Your task to perform on an android device: What is the recent news? Image 0: 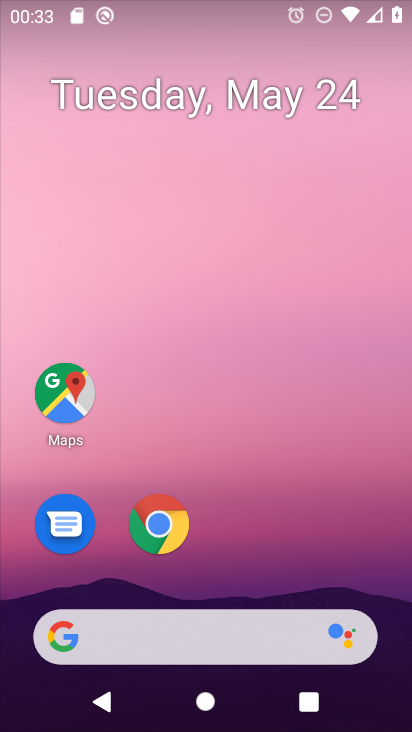
Step 0: drag from (236, 577) to (234, 177)
Your task to perform on an android device: What is the recent news? Image 1: 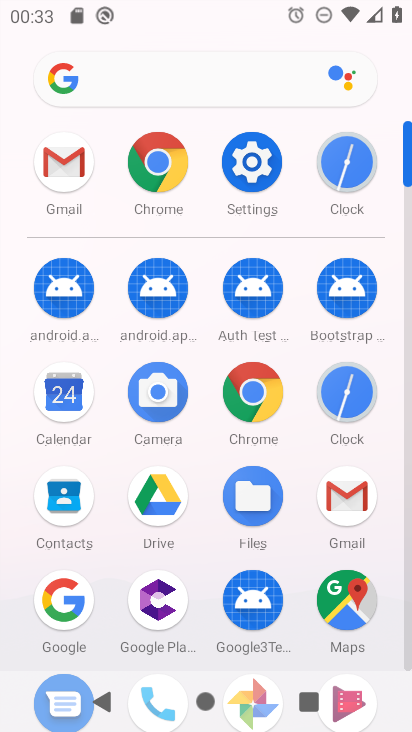
Step 1: click (58, 587)
Your task to perform on an android device: What is the recent news? Image 2: 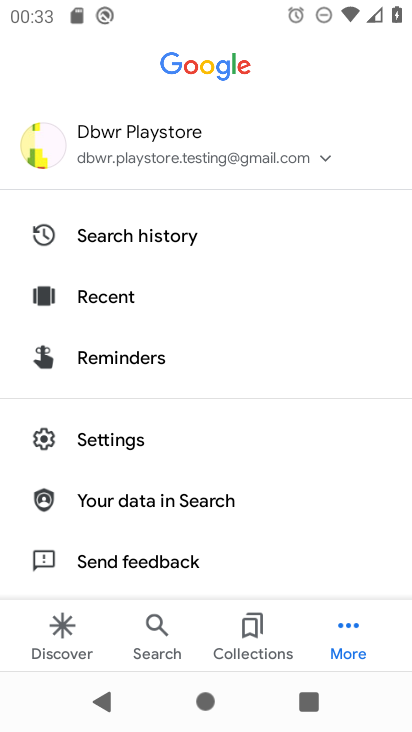
Step 2: press back button
Your task to perform on an android device: What is the recent news? Image 3: 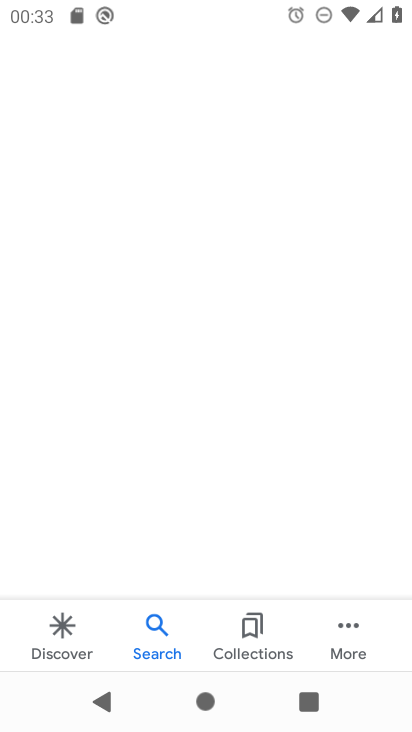
Step 3: press home button
Your task to perform on an android device: What is the recent news? Image 4: 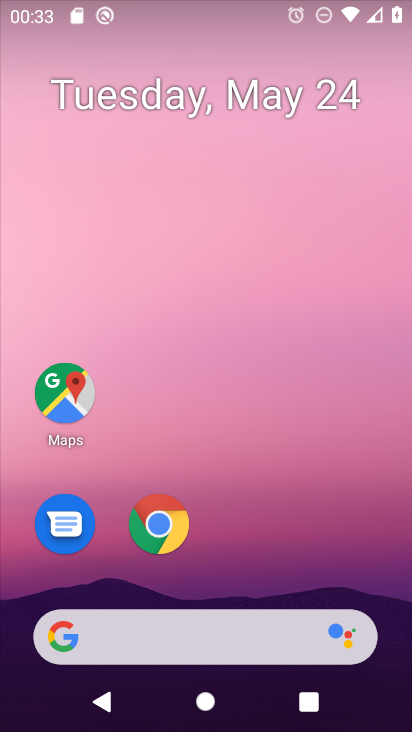
Step 4: drag from (199, 582) to (222, 191)
Your task to perform on an android device: What is the recent news? Image 5: 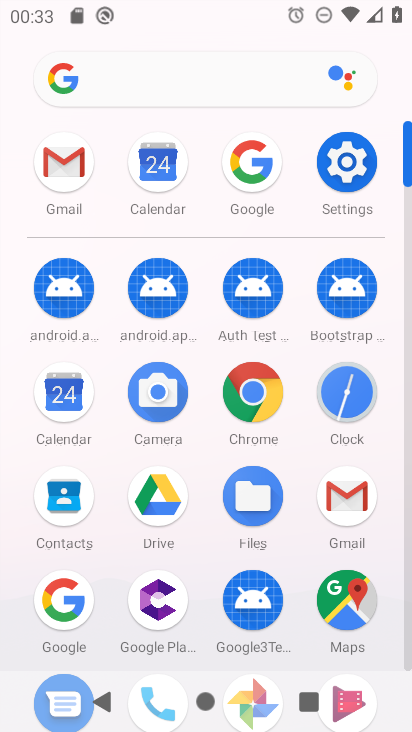
Step 5: drag from (136, 566) to (136, 393)
Your task to perform on an android device: What is the recent news? Image 6: 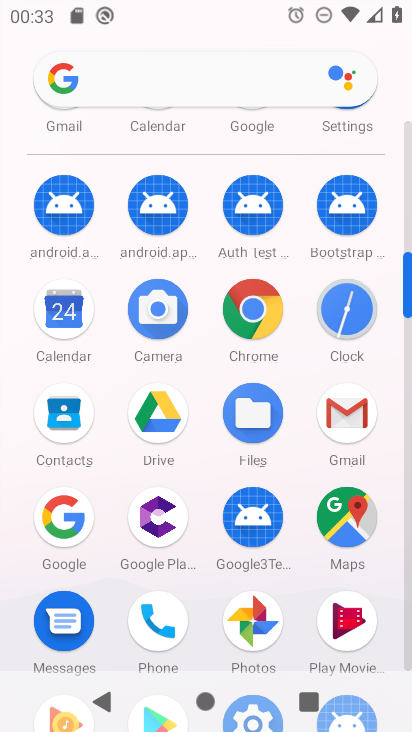
Step 6: click (40, 535)
Your task to perform on an android device: What is the recent news? Image 7: 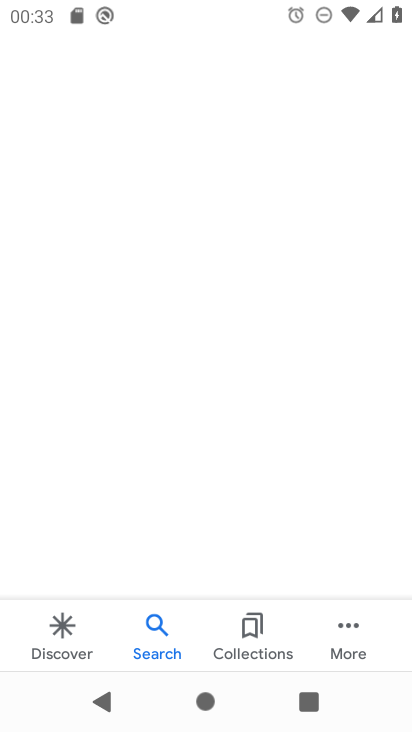
Step 7: click (71, 659)
Your task to perform on an android device: What is the recent news? Image 8: 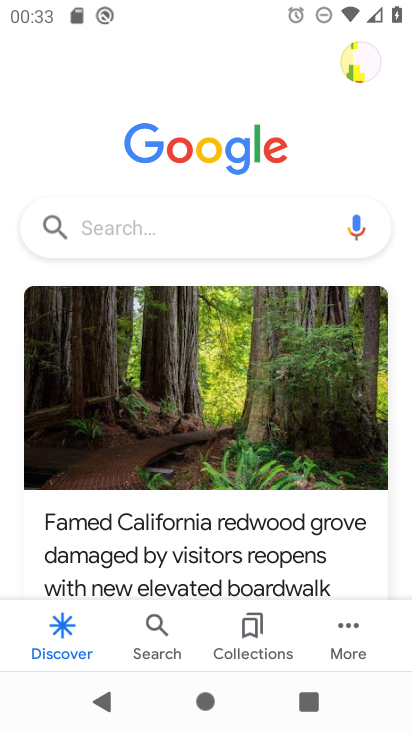
Step 8: click (165, 236)
Your task to perform on an android device: What is the recent news? Image 9: 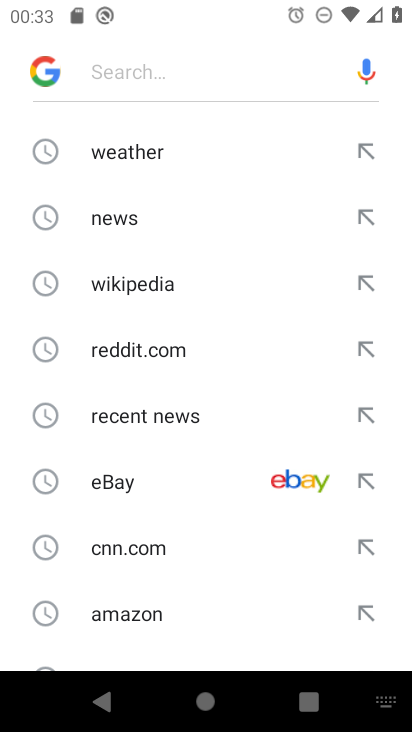
Step 9: click (133, 212)
Your task to perform on an android device: What is the recent news? Image 10: 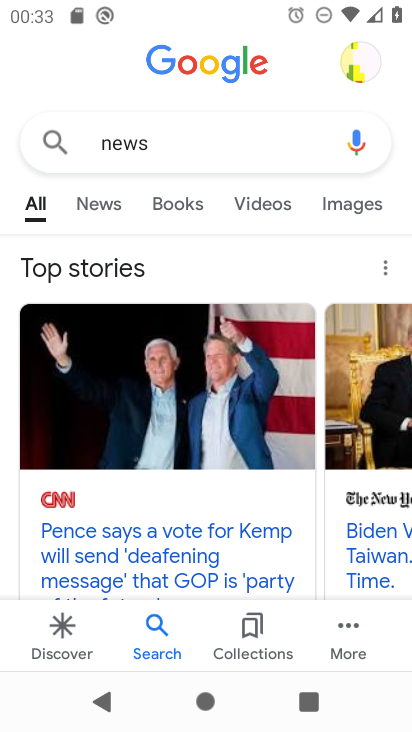
Step 10: click (104, 201)
Your task to perform on an android device: What is the recent news? Image 11: 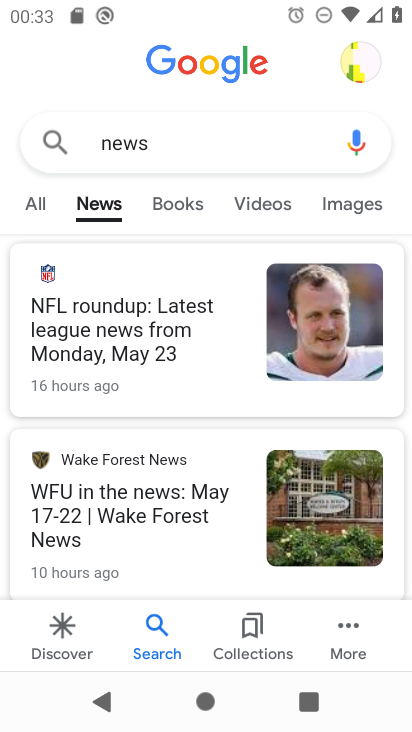
Step 11: task complete